Your task to perform on an android device: set an alarm Image 0: 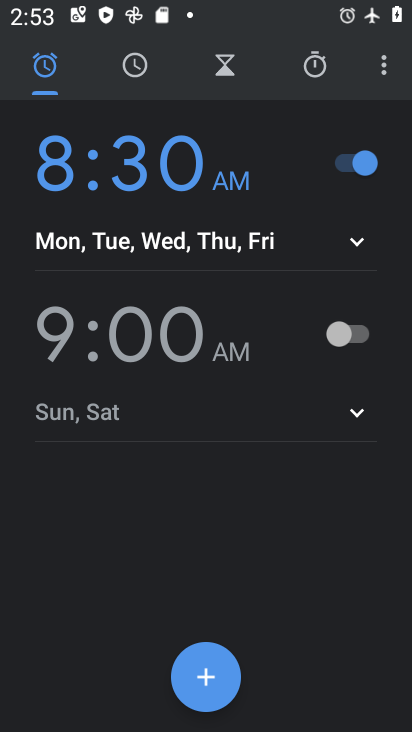
Step 0: task complete